Your task to perform on an android device: delete browsing data in the chrome app Image 0: 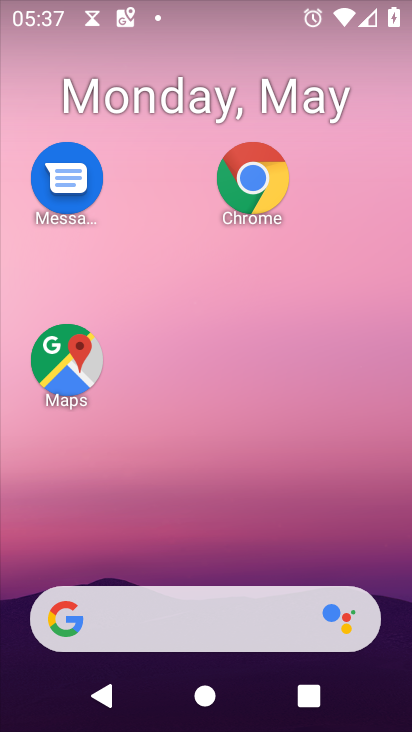
Step 0: click (244, 186)
Your task to perform on an android device: delete browsing data in the chrome app Image 1: 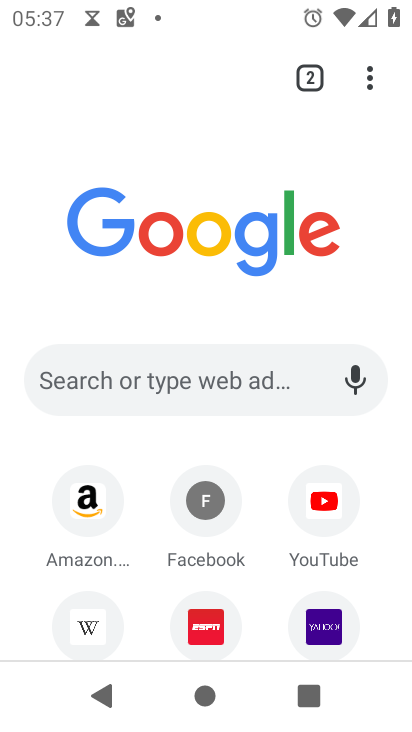
Step 1: click (367, 72)
Your task to perform on an android device: delete browsing data in the chrome app Image 2: 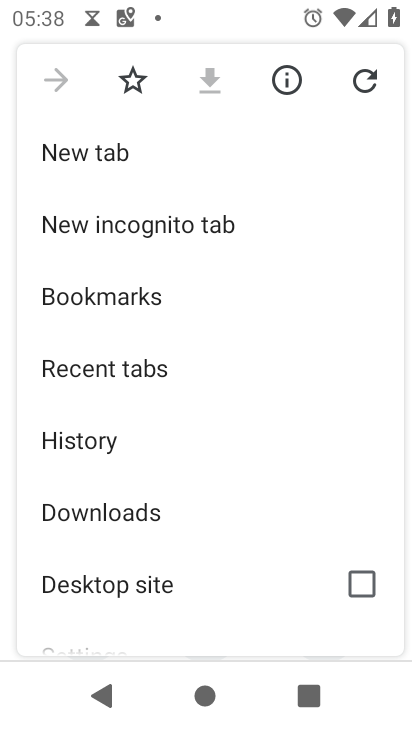
Step 2: click (90, 449)
Your task to perform on an android device: delete browsing data in the chrome app Image 3: 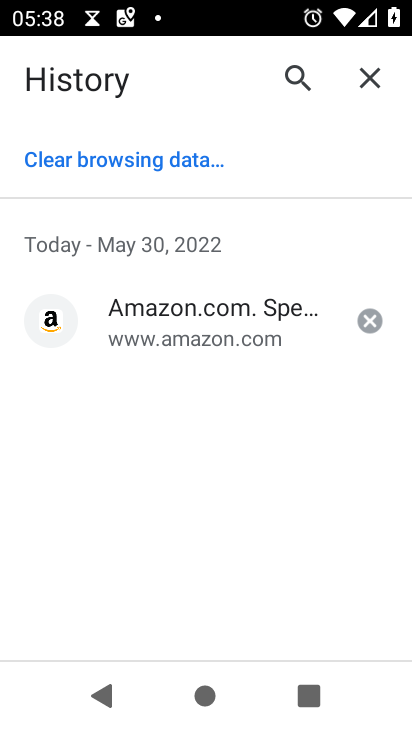
Step 3: click (157, 165)
Your task to perform on an android device: delete browsing data in the chrome app Image 4: 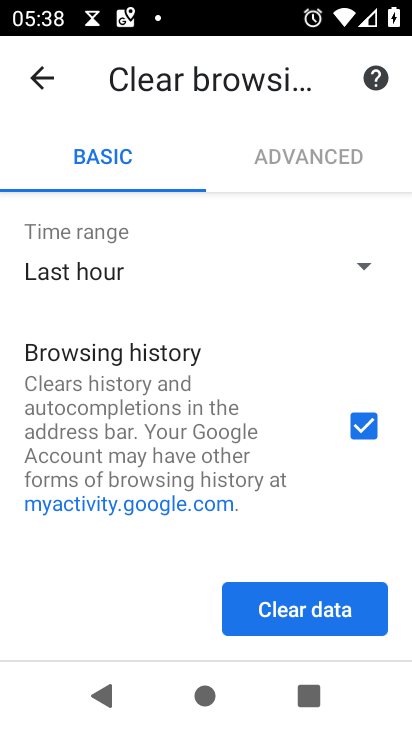
Step 4: drag from (248, 477) to (244, 294)
Your task to perform on an android device: delete browsing data in the chrome app Image 5: 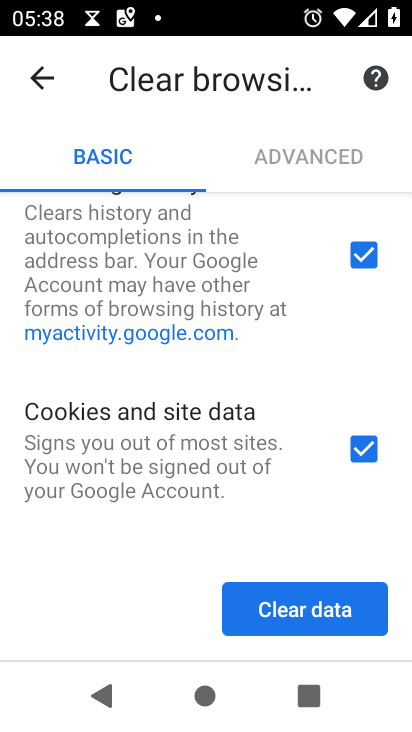
Step 5: click (295, 616)
Your task to perform on an android device: delete browsing data in the chrome app Image 6: 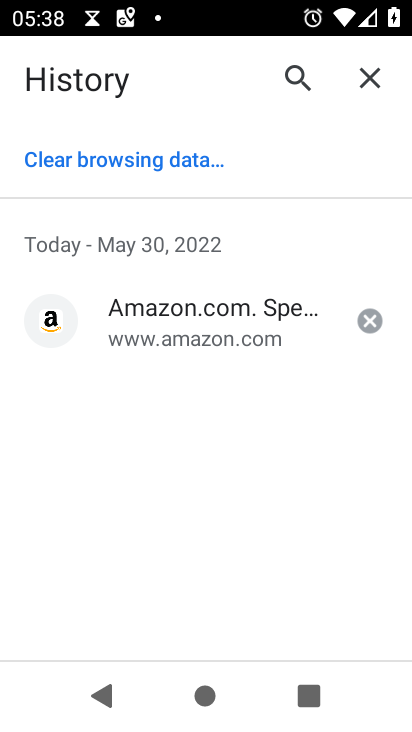
Step 6: task complete